Your task to perform on an android device: check google app version Image 0: 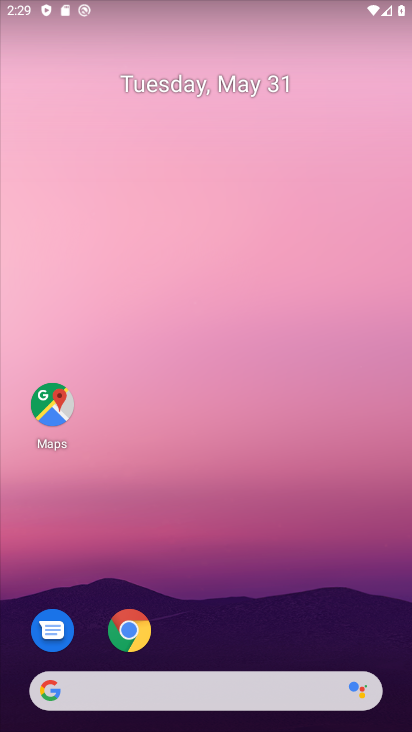
Step 0: drag from (294, 617) to (246, 184)
Your task to perform on an android device: check google app version Image 1: 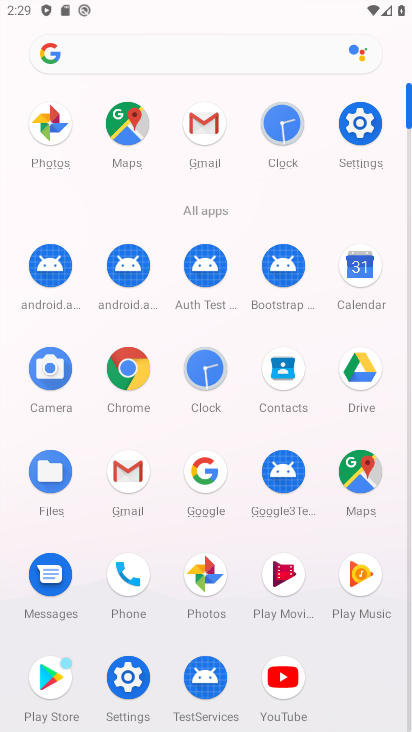
Step 1: click (209, 478)
Your task to perform on an android device: check google app version Image 2: 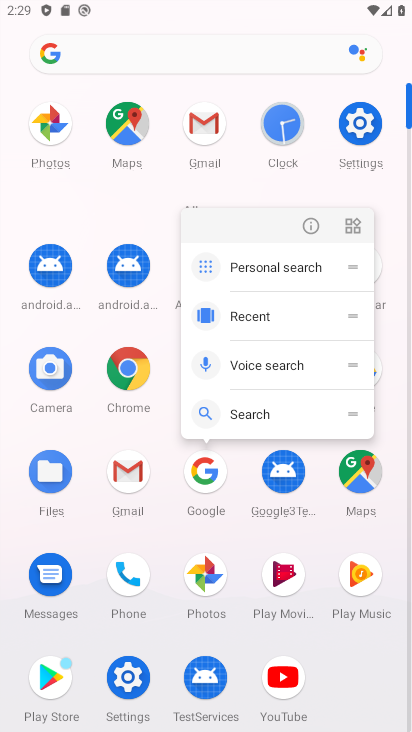
Step 2: click (309, 223)
Your task to perform on an android device: check google app version Image 3: 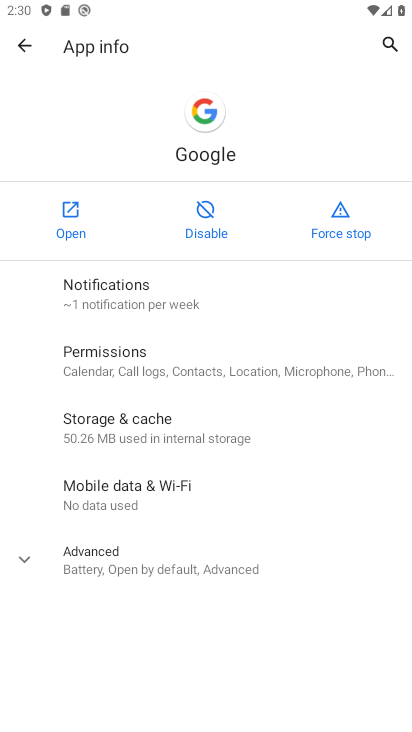
Step 3: click (95, 564)
Your task to perform on an android device: check google app version Image 4: 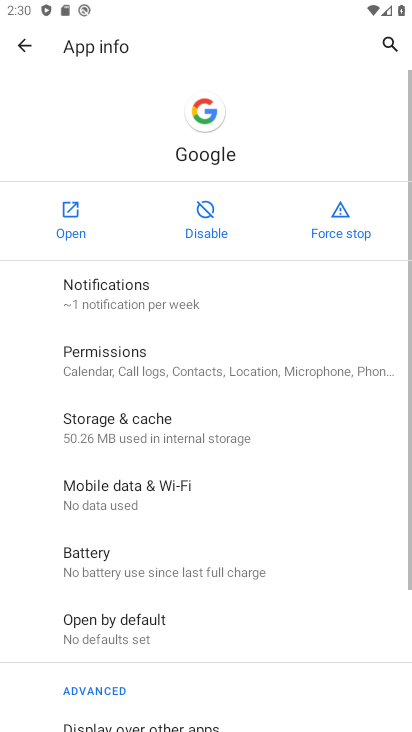
Step 4: task complete